Your task to perform on an android device: check storage Image 0: 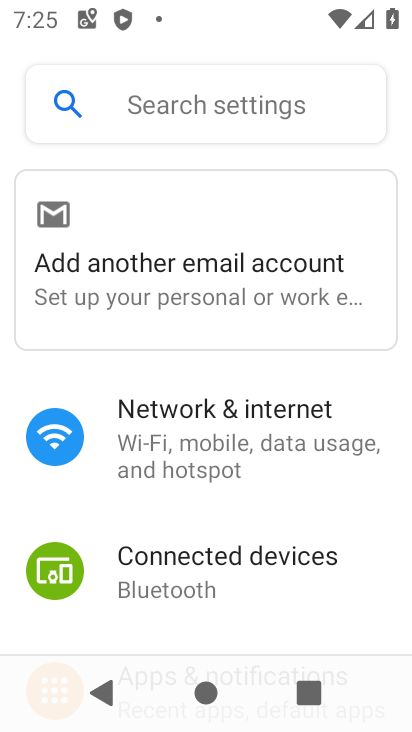
Step 0: drag from (306, 562) to (305, 180)
Your task to perform on an android device: check storage Image 1: 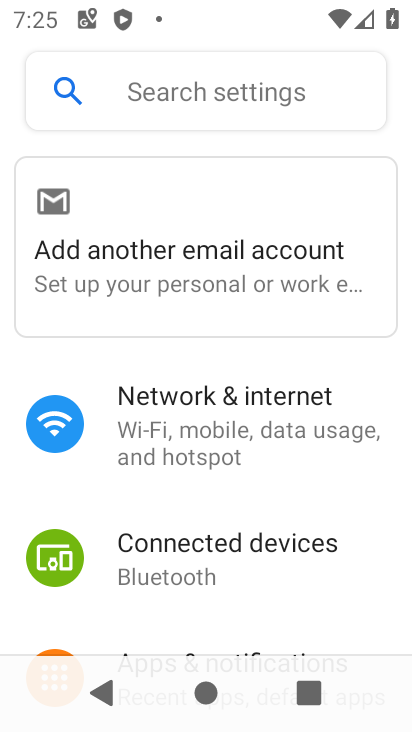
Step 1: drag from (288, 207) to (289, 157)
Your task to perform on an android device: check storage Image 2: 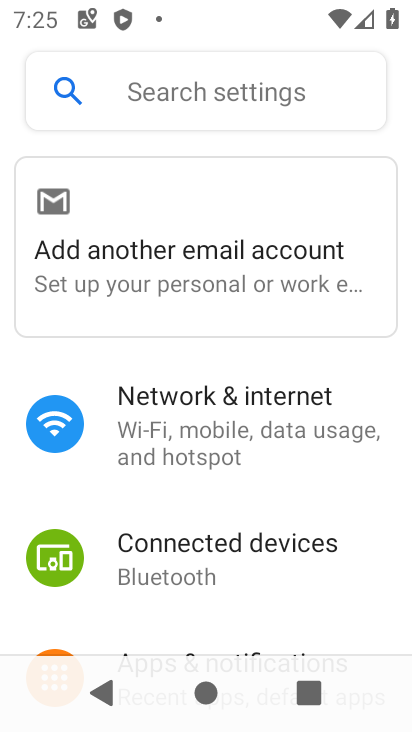
Step 2: drag from (290, 487) to (259, 228)
Your task to perform on an android device: check storage Image 3: 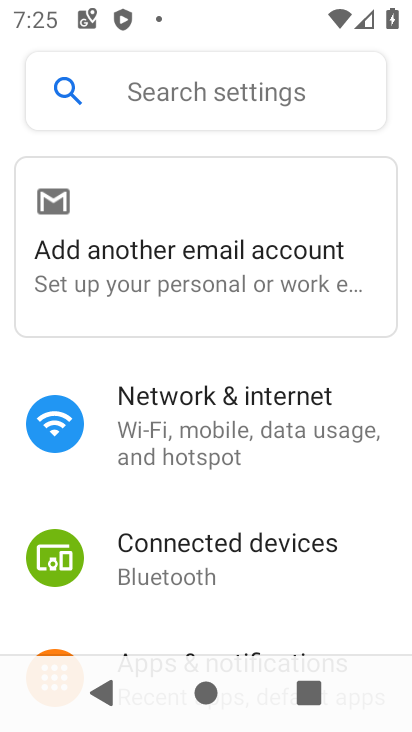
Step 3: drag from (356, 620) to (373, 256)
Your task to perform on an android device: check storage Image 4: 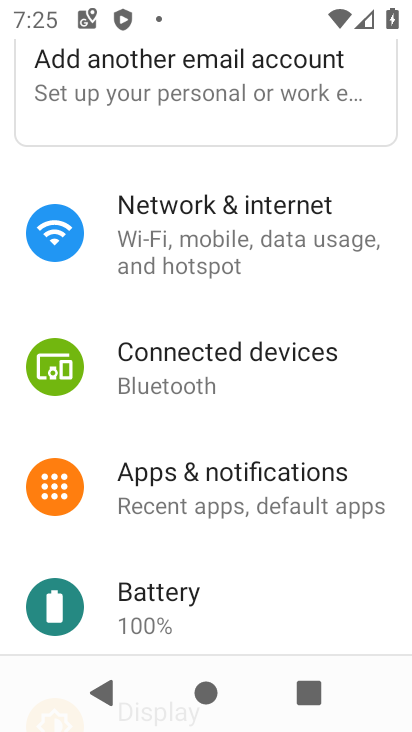
Step 4: drag from (310, 600) to (282, 139)
Your task to perform on an android device: check storage Image 5: 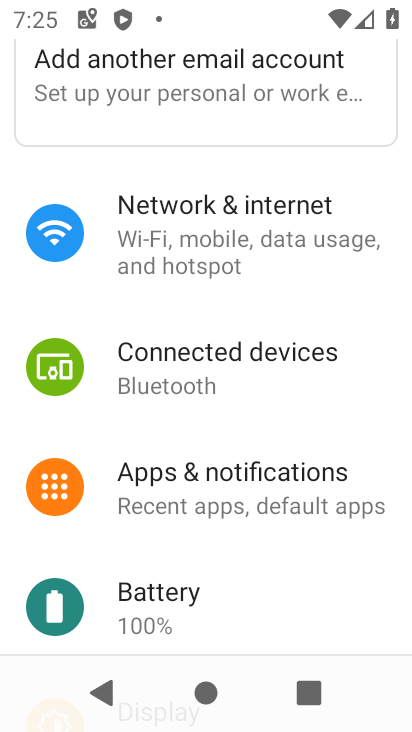
Step 5: drag from (303, 605) to (304, 229)
Your task to perform on an android device: check storage Image 6: 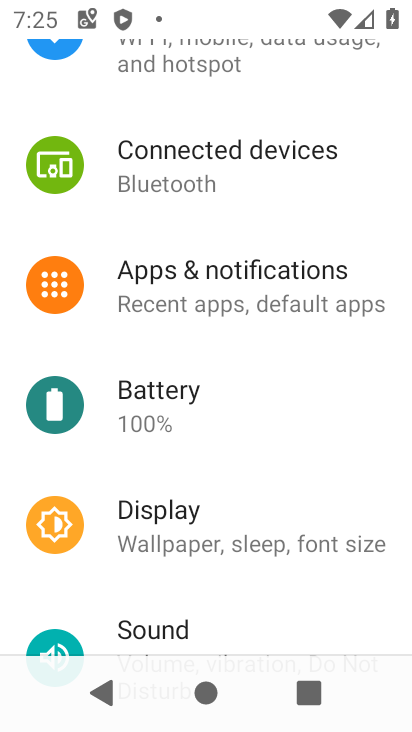
Step 6: drag from (293, 616) to (309, 183)
Your task to perform on an android device: check storage Image 7: 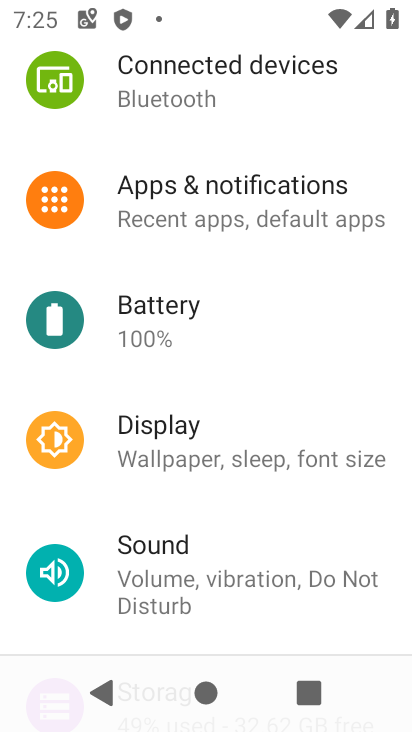
Step 7: drag from (283, 351) to (285, 235)
Your task to perform on an android device: check storage Image 8: 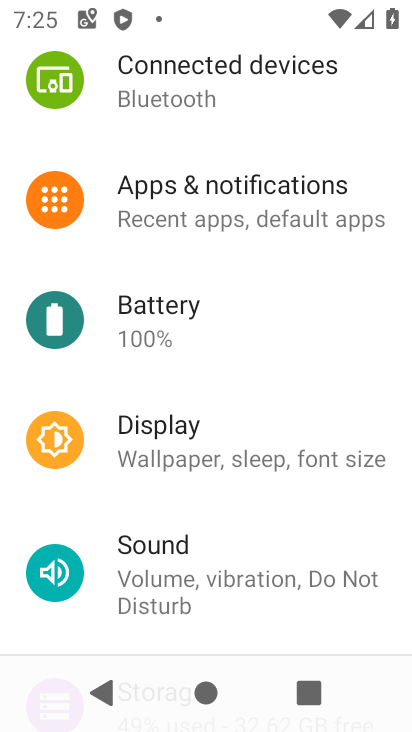
Step 8: drag from (255, 481) to (246, 224)
Your task to perform on an android device: check storage Image 9: 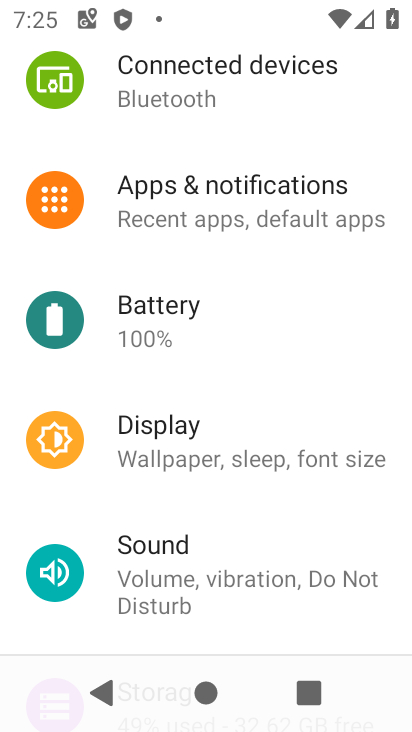
Step 9: drag from (299, 627) to (339, 240)
Your task to perform on an android device: check storage Image 10: 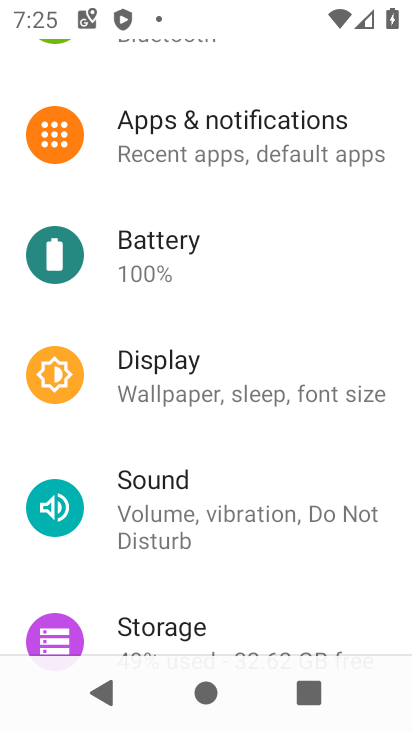
Step 10: click (137, 637)
Your task to perform on an android device: check storage Image 11: 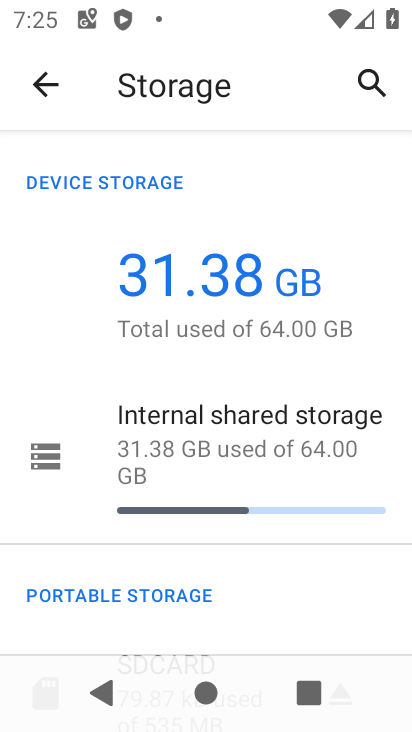
Step 11: task complete